Your task to perform on an android device: choose inbox layout in the gmail app Image 0: 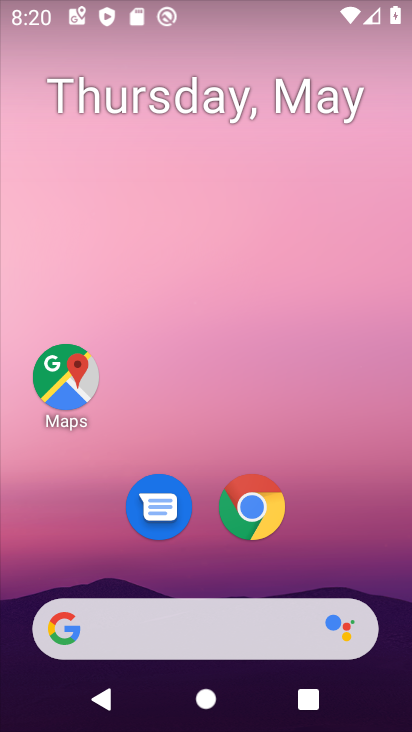
Step 0: drag from (352, 575) to (340, 174)
Your task to perform on an android device: choose inbox layout in the gmail app Image 1: 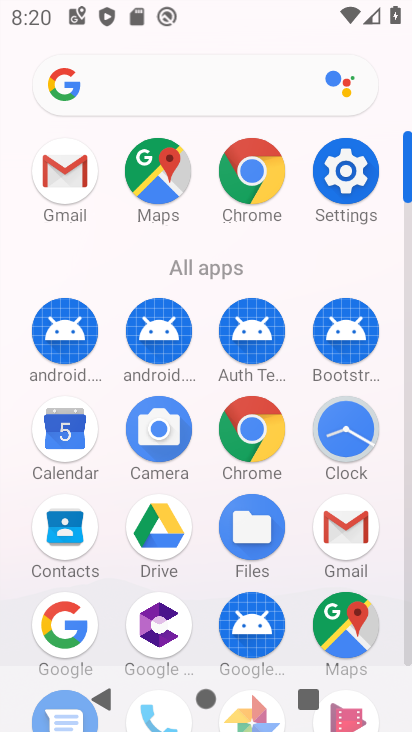
Step 1: click (342, 542)
Your task to perform on an android device: choose inbox layout in the gmail app Image 2: 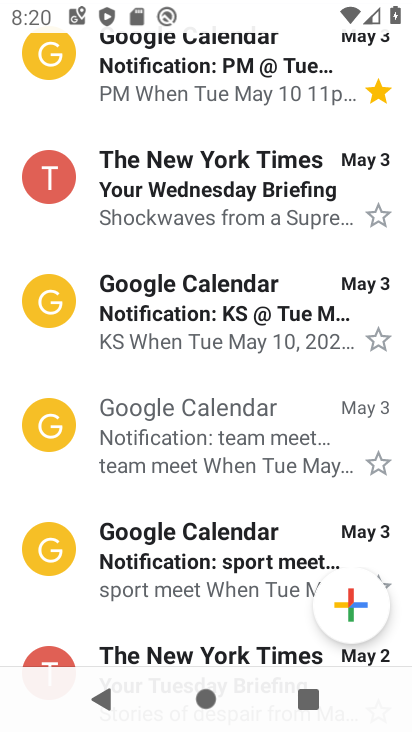
Step 2: drag from (104, 86) to (132, 530)
Your task to perform on an android device: choose inbox layout in the gmail app Image 3: 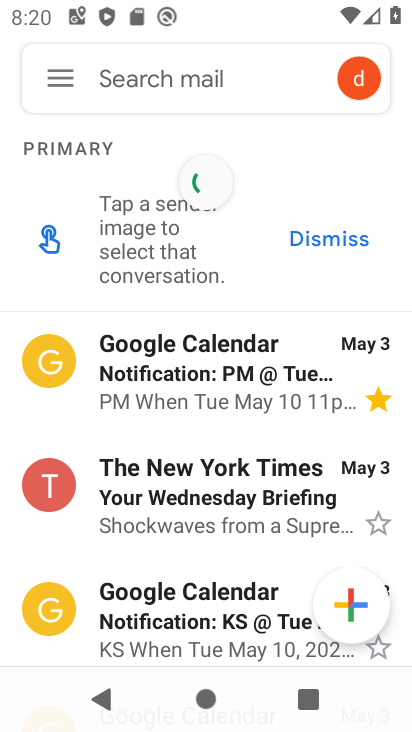
Step 3: click (66, 75)
Your task to perform on an android device: choose inbox layout in the gmail app Image 4: 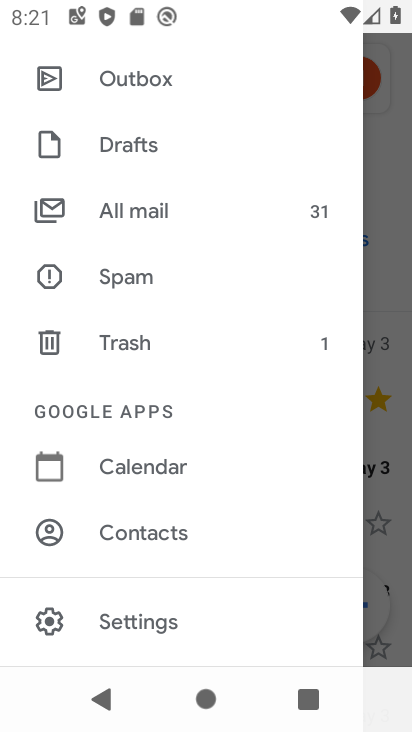
Step 4: drag from (244, 608) to (201, 173)
Your task to perform on an android device: choose inbox layout in the gmail app Image 5: 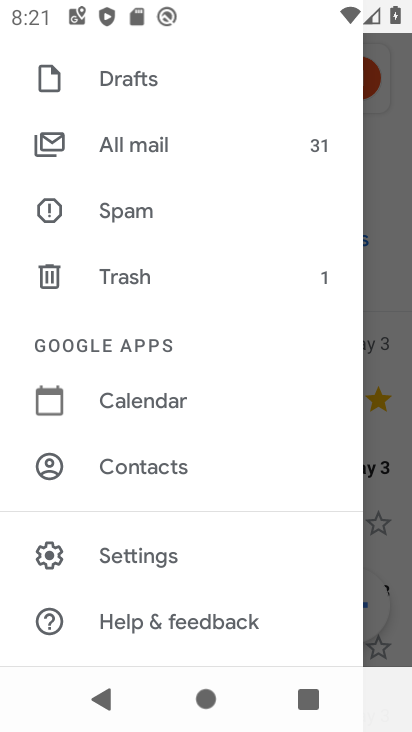
Step 5: click (155, 559)
Your task to perform on an android device: choose inbox layout in the gmail app Image 6: 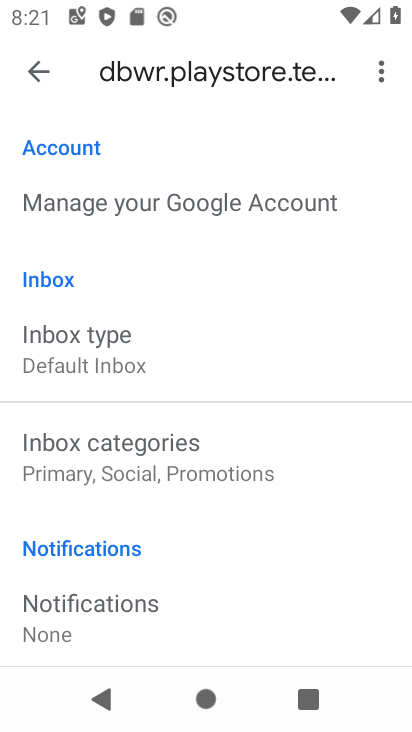
Step 6: click (136, 360)
Your task to perform on an android device: choose inbox layout in the gmail app Image 7: 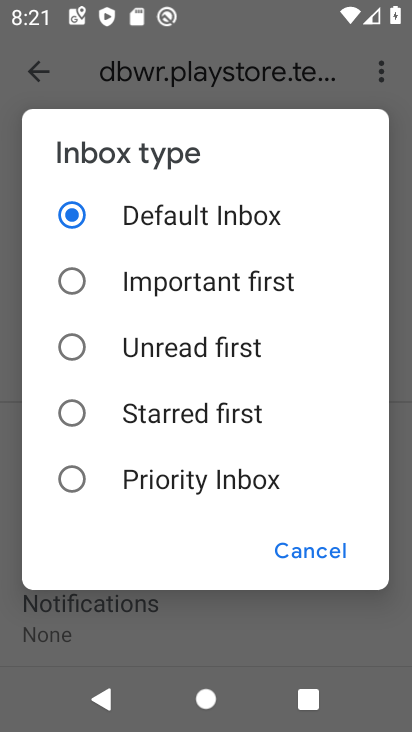
Step 7: click (125, 281)
Your task to perform on an android device: choose inbox layout in the gmail app Image 8: 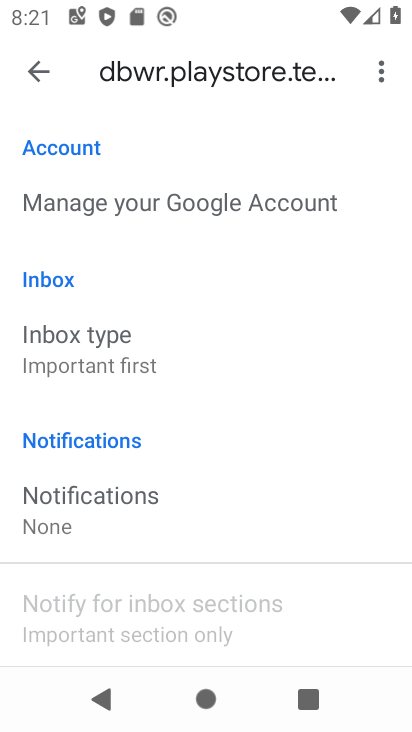
Step 8: task complete